Your task to perform on an android device: Go to Yahoo.com Image 0: 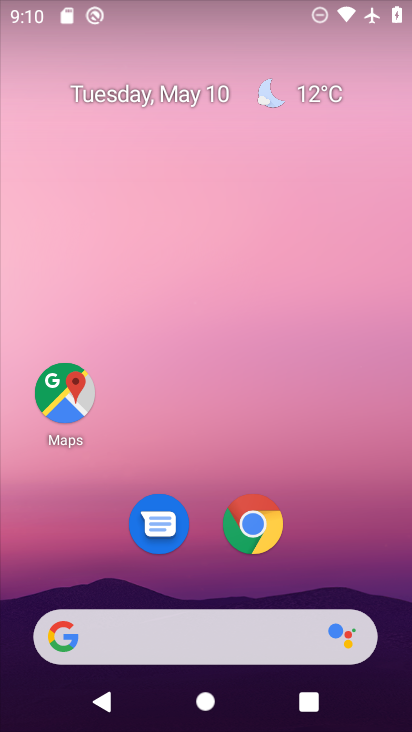
Step 0: drag from (208, 473) to (228, 12)
Your task to perform on an android device: Go to Yahoo.com Image 1: 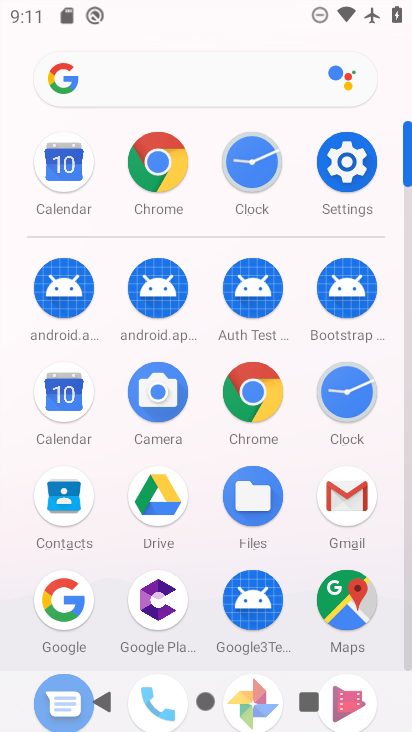
Step 1: click (71, 600)
Your task to perform on an android device: Go to Yahoo.com Image 2: 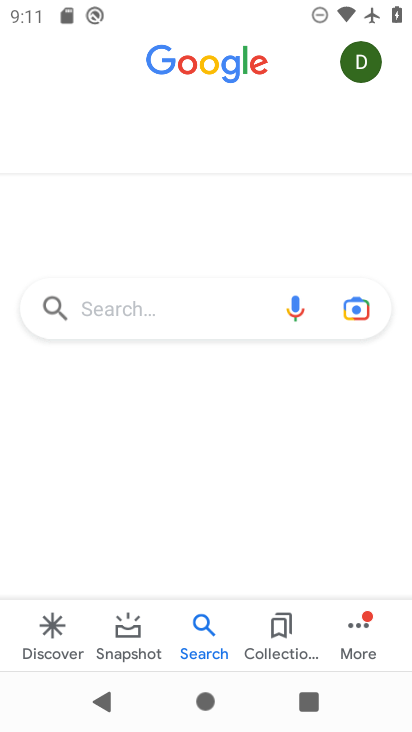
Step 2: click (203, 303)
Your task to perform on an android device: Go to Yahoo.com Image 3: 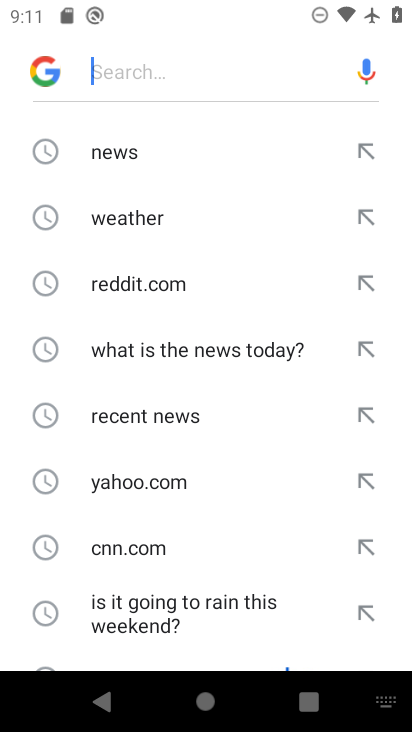
Step 3: click (82, 473)
Your task to perform on an android device: Go to Yahoo.com Image 4: 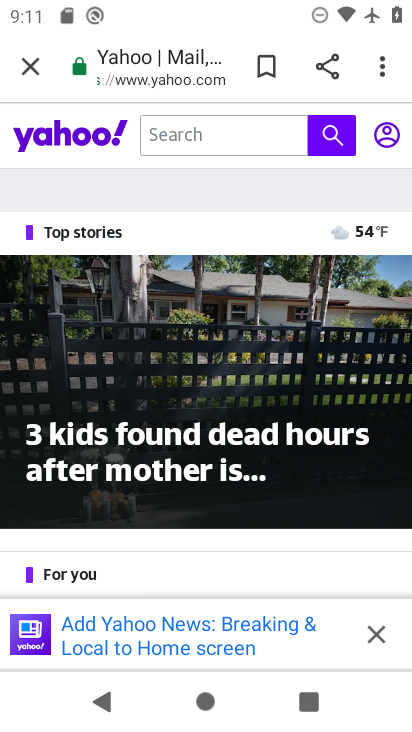
Step 4: task complete